Your task to perform on an android device: Check the weather Image 0: 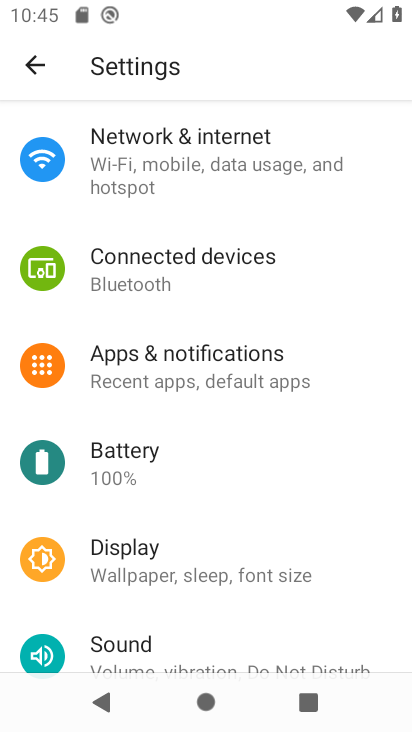
Step 0: press home button
Your task to perform on an android device: Check the weather Image 1: 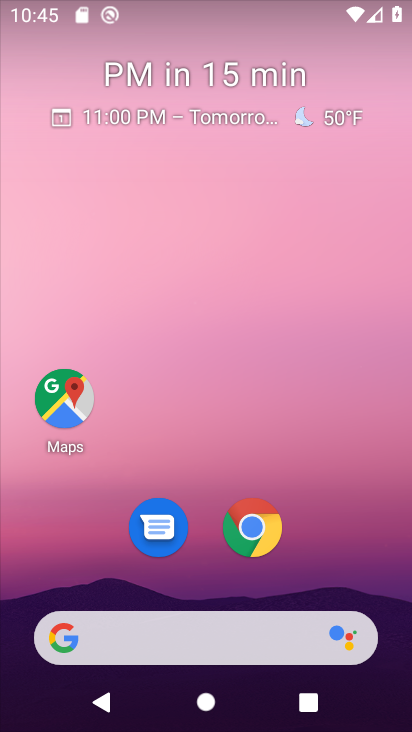
Step 1: click (336, 113)
Your task to perform on an android device: Check the weather Image 2: 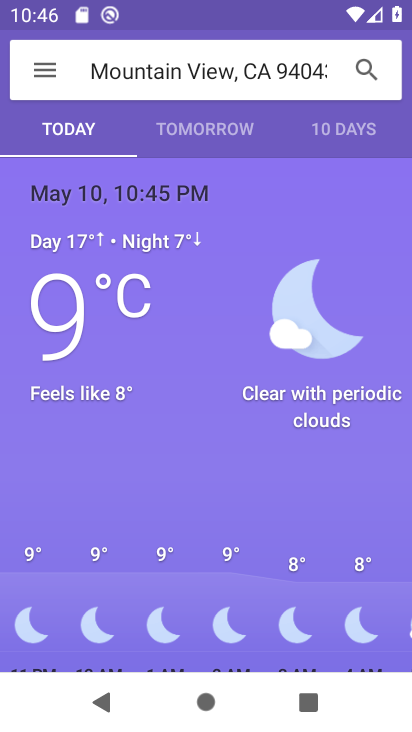
Step 2: task complete